Your task to perform on an android device: Go to internet settings Image 0: 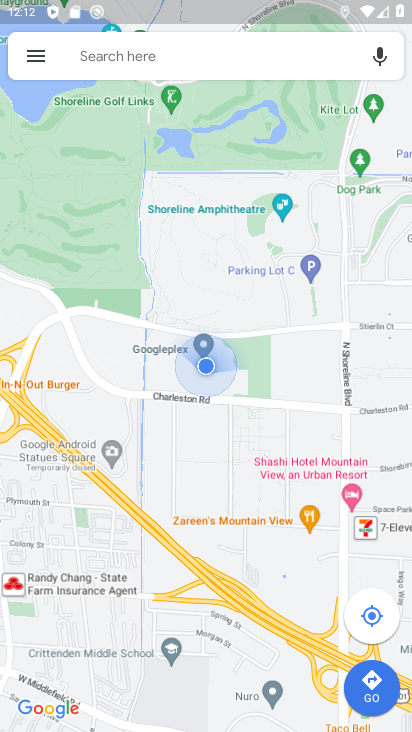
Step 0: press home button
Your task to perform on an android device: Go to internet settings Image 1: 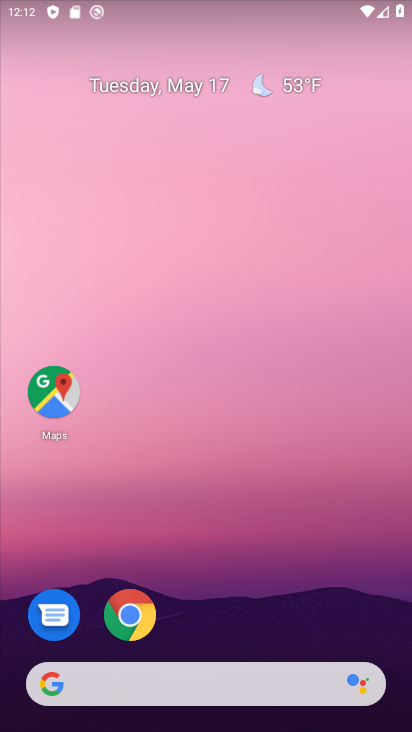
Step 1: drag from (266, 584) to (279, 40)
Your task to perform on an android device: Go to internet settings Image 2: 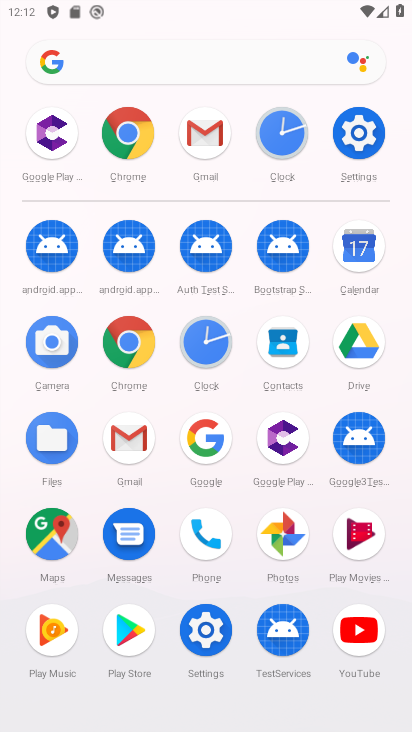
Step 2: click (356, 146)
Your task to perform on an android device: Go to internet settings Image 3: 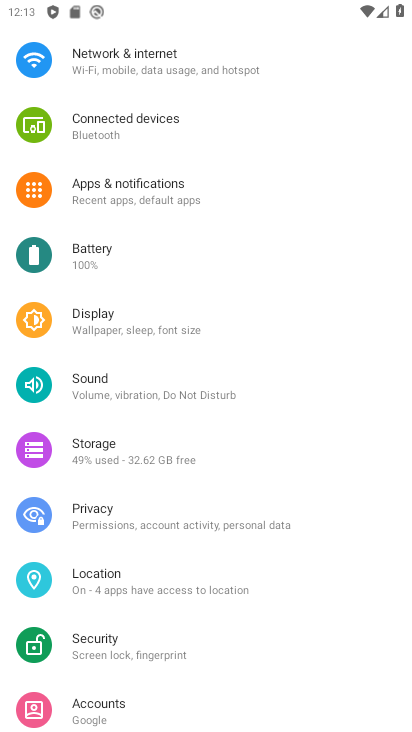
Step 3: click (230, 81)
Your task to perform on an android device: Go to internet settings Image 4: 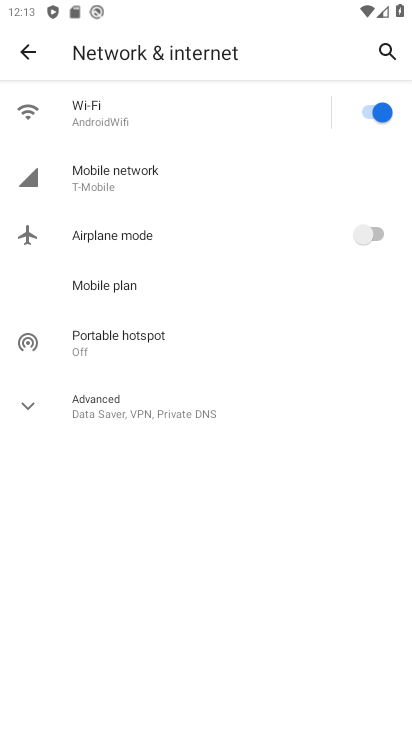
Step 4: task complete